Your task to perform on an android device: Open the web browser Image 0: 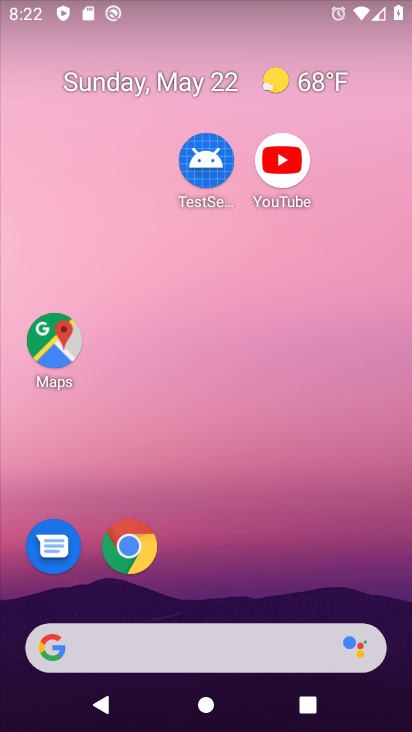
Step 0: drag from (281, 704) to (83, 188)
Your task to perform on an android device: Open the web browser Image 1: 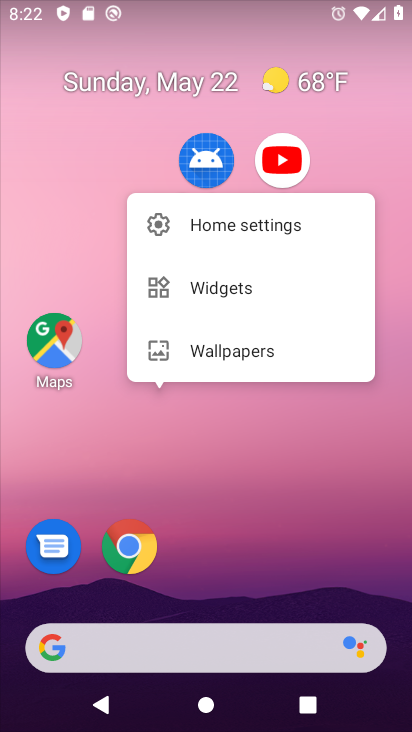
Step 1: click (257, 533)
Your task to perform on an android device: Open the web browser Image 2: 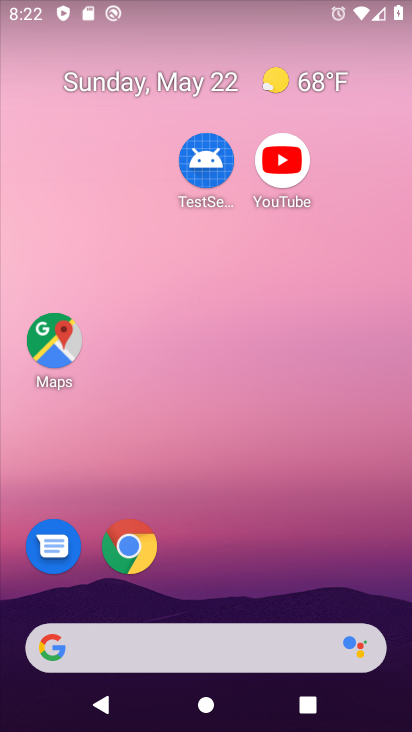
Step 2: click (204, 442)
Your task to perform on an android device: Open the web browser Image 3: 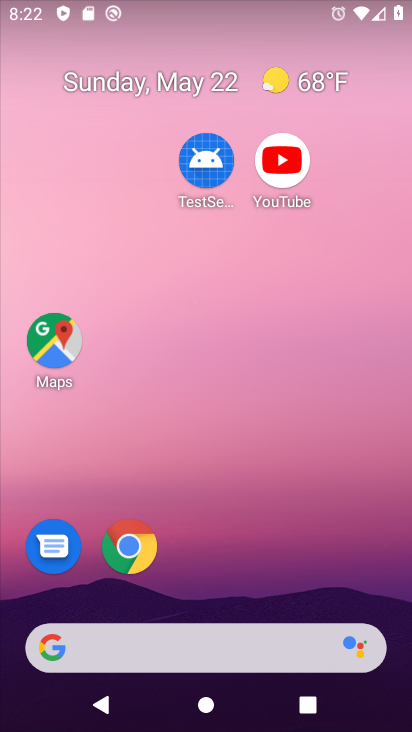
Step 3: drag from (256, 673) to (134, 119)
Your task to perform on an android device: Open the web browser Image 4: 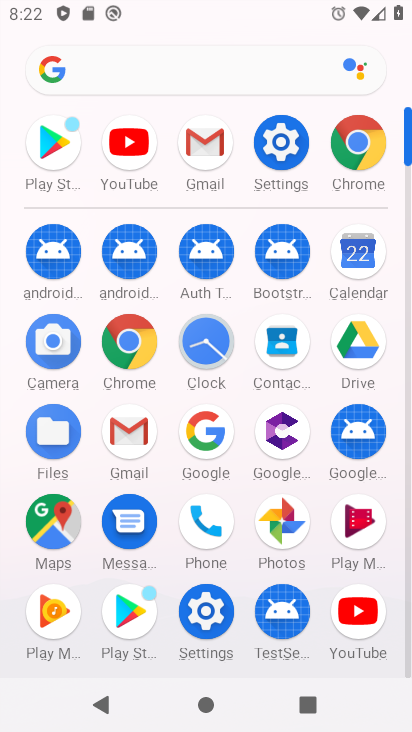
Step 4: click (349, 149)
Your task to perform on an android device: Open the web browser Image 5: 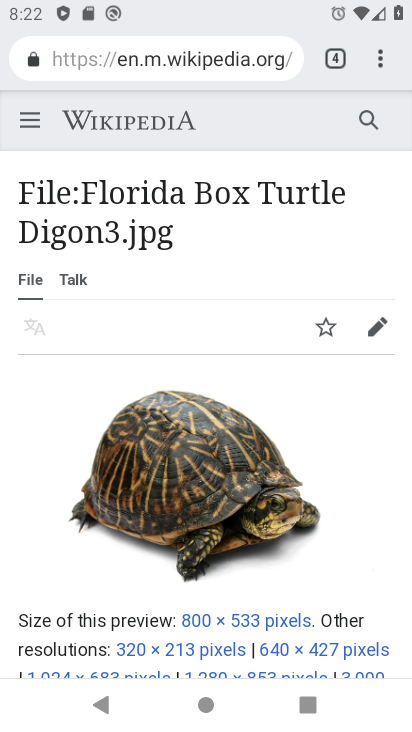
Step 5: drag from (378, 52) to (166, 108)
Your task to perform on an android device: Open the web browser Image 6: 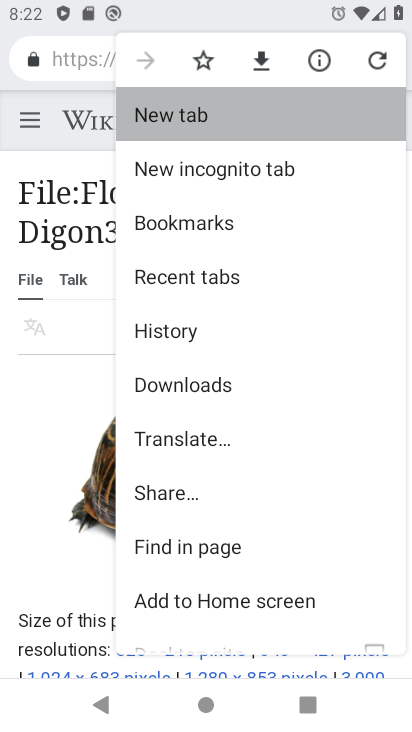
Step 6: click (166, 109)
Your task to perform on an android device: Open the web browser Image 7: 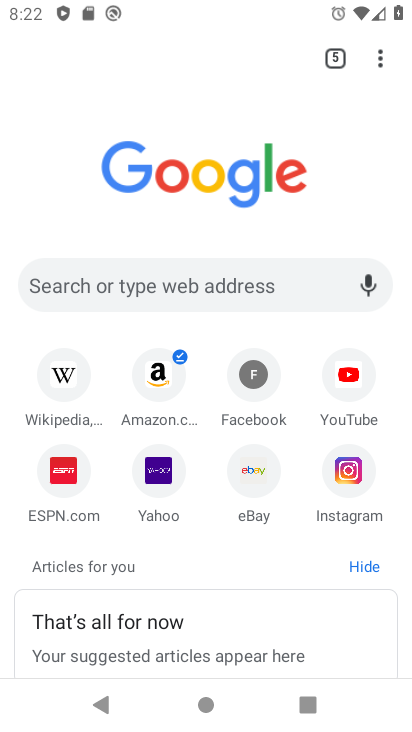
Step 7: task complete